Your task to perform on an android device: Go to Maps Image 0: 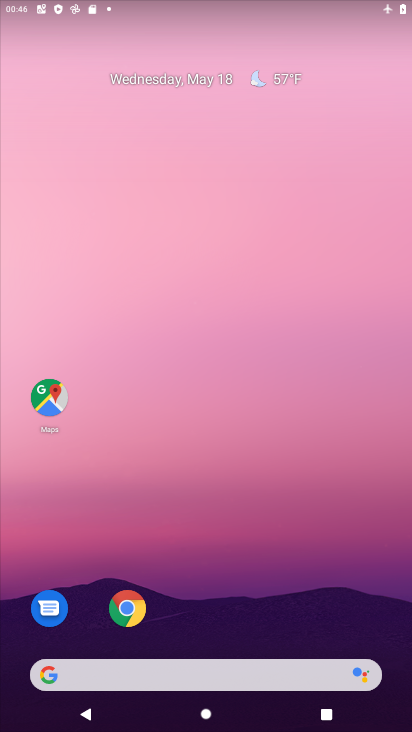
Step 0: click (124, 604)
Your task to perform on an android device: Go to Maps Image 1: 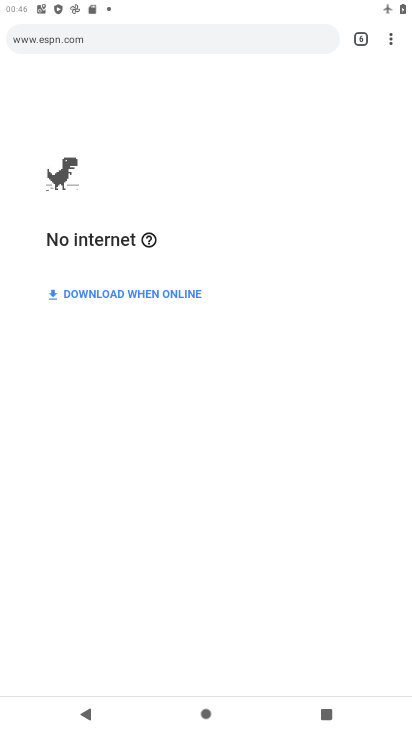
Step 1: task complete